Your task to perform on an android device: open wifi settings Image 0: 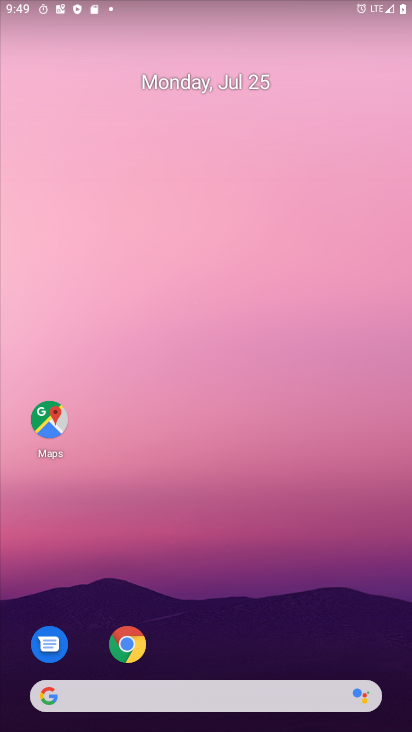
Step 0: drag from (262, 620) to (277, 128)
Your task to perform on an android device: open wifi settings Image 1: 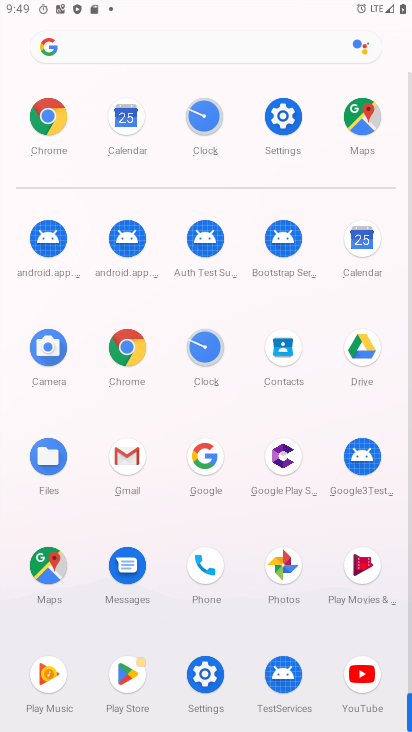
Step 1: click (282, 140)
Your task to perform on an android device: open wifi settings Image 2: 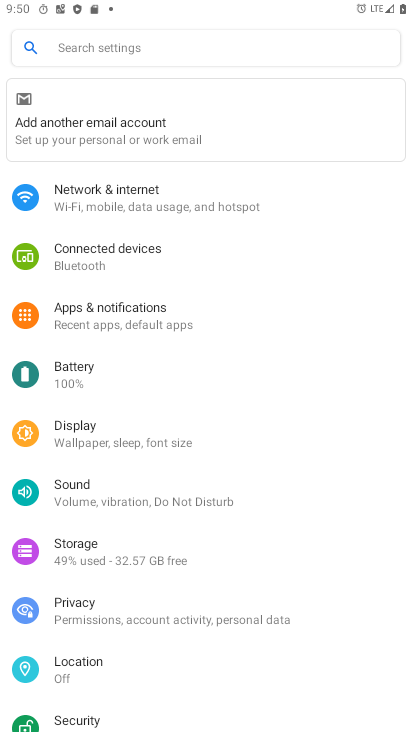
Step 2: click (145, 208)
Your task to perform on an android device: open wifi settings Image 3: 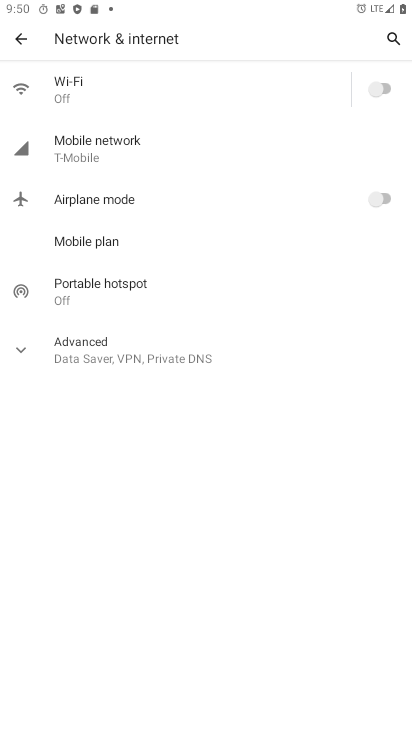
Step 3: click (180, 91)
Your task to perform on an android device: open wifi settings Image 4: 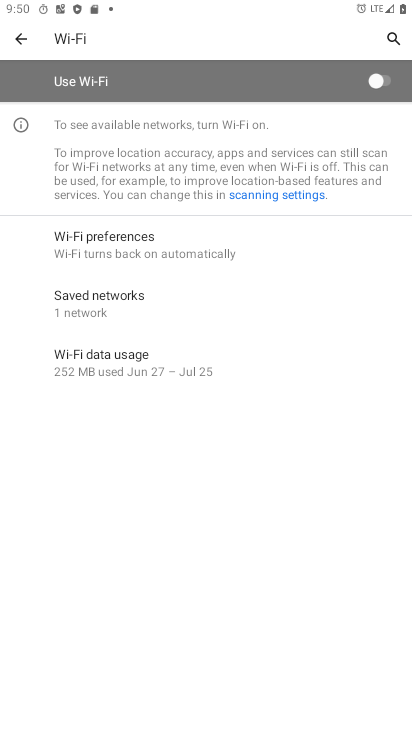
Step 4: task complete